Your task to perform on an android device: Open Chrome and go to the settings page Image 0: 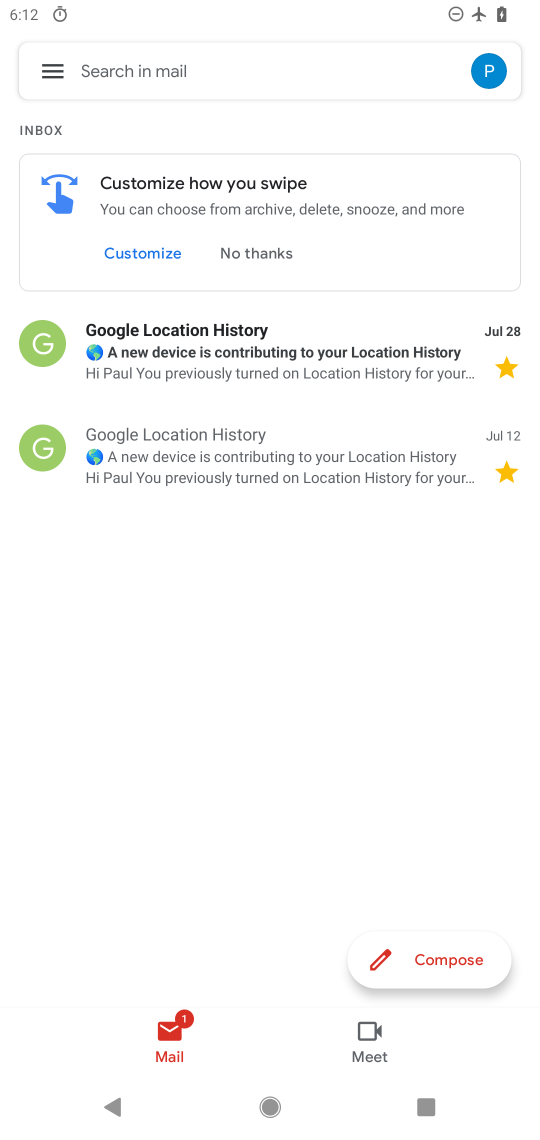
Step 0: press home button
Your task to perform on an android device: Open Chrome and go to the settings page Image 1: 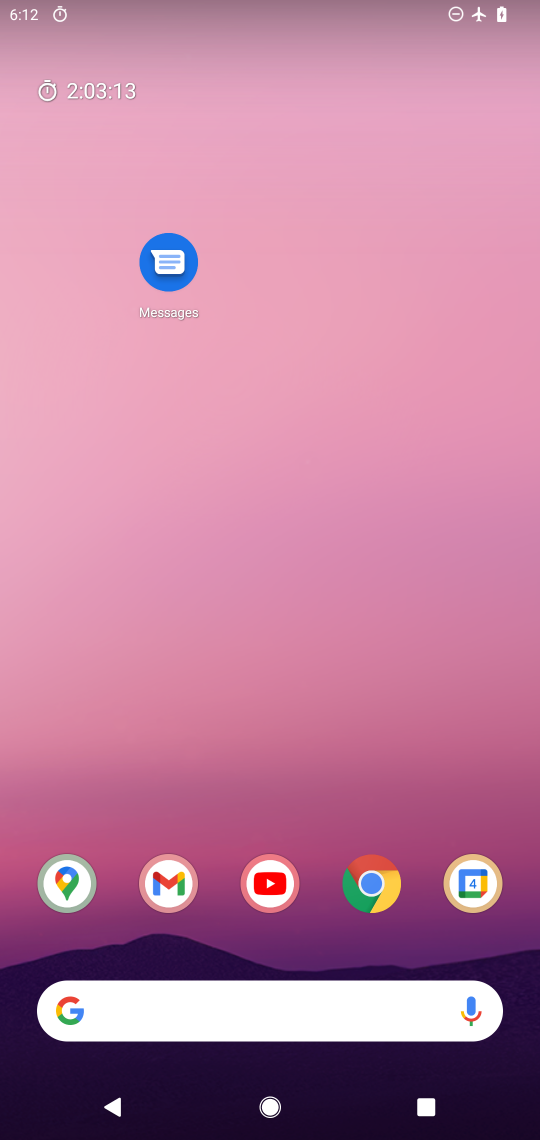
Step 1: click (368, 881)
Your task to perform on an android device: Open Chrome and go to the settings page Image 2: 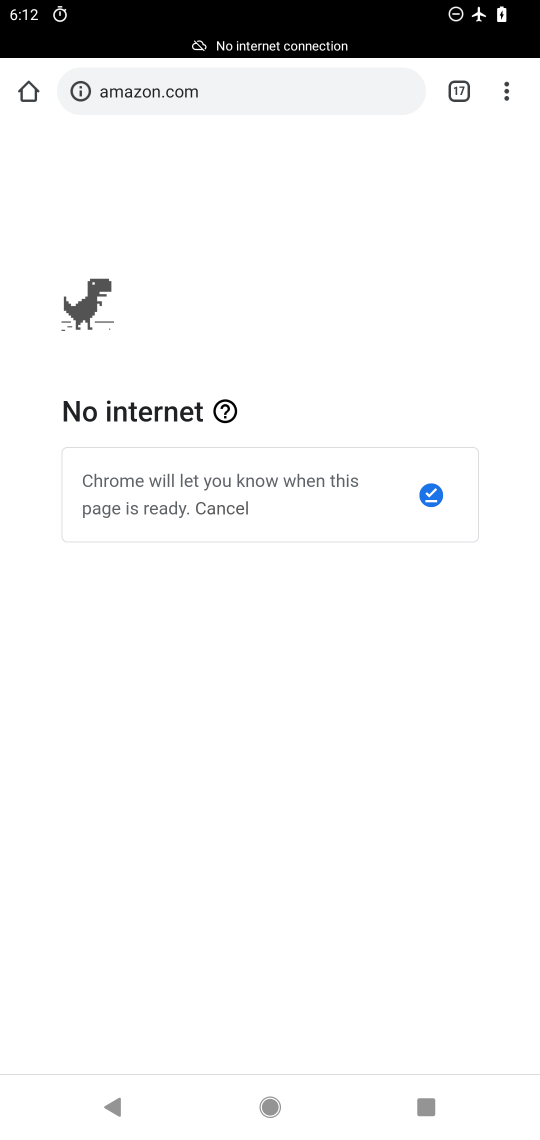
Step 2: click (507, 98)
Your task to perform on an android device: Open Chrome and go to the settings page Image 3: 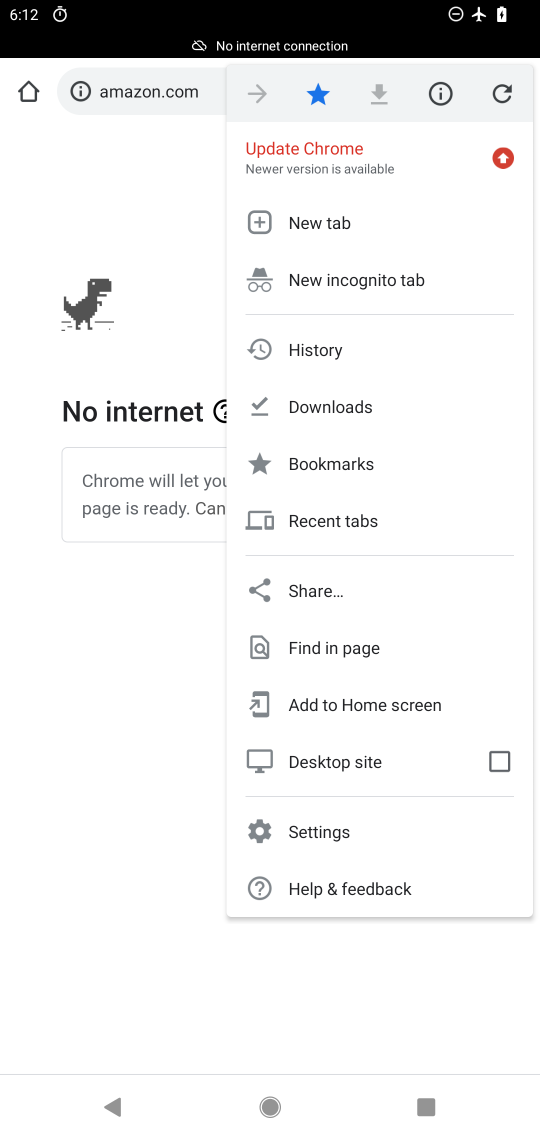
Step 3: click (323, 831)
Your task to perform on an android device: Open Chrome and go to the settings page Image 4: 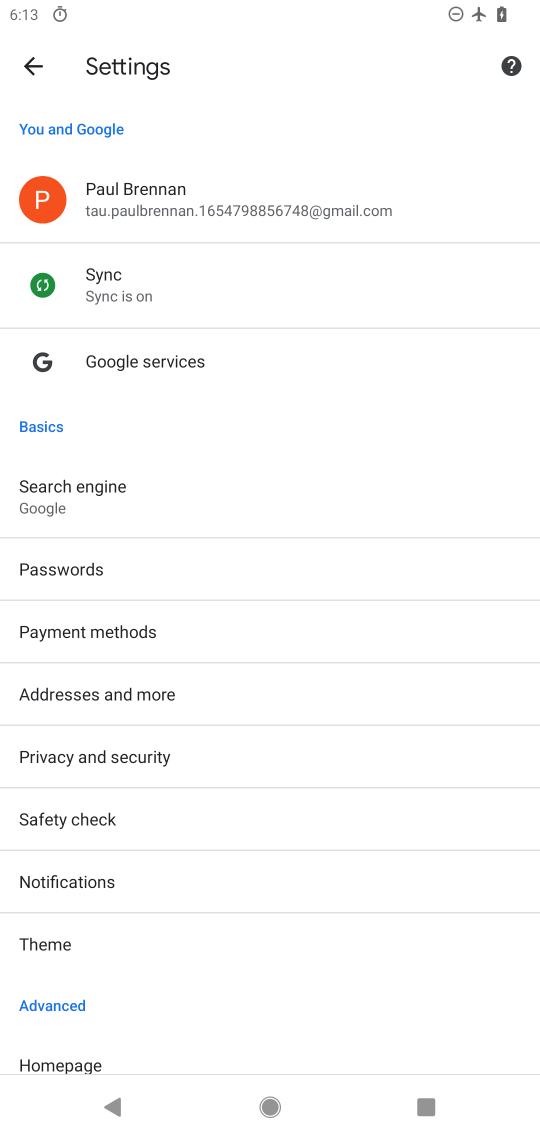
Step 4: task complete